Your task to perform on an android device: Open privacy settings Image 0: 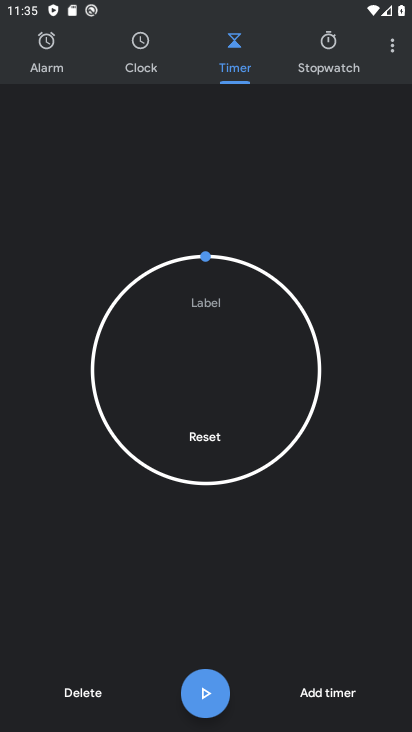
Step 0: press home button
Your task to perform on an android device: Open privacy settings Image 1: 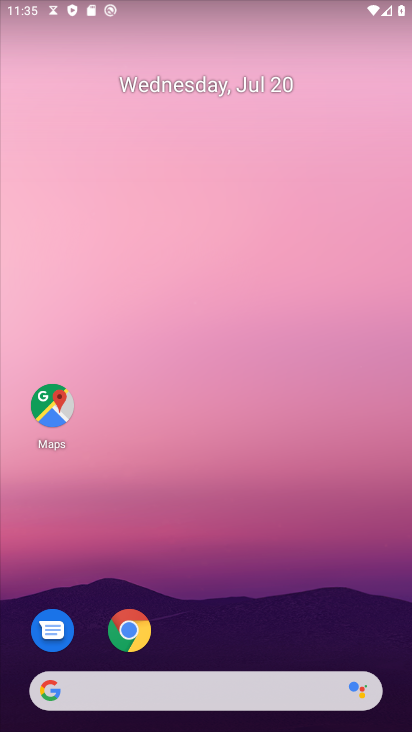
Step 1: drag from (47, 649) to (245, 170)
Your task to perform on an android device: Open privacy settings Image 2: 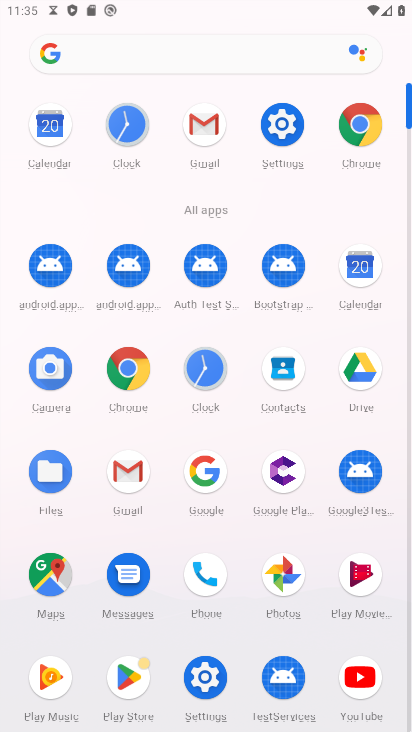
Step 2: click (194, 659)
Your task to perform on an android device: Open privacy settings Image 3: 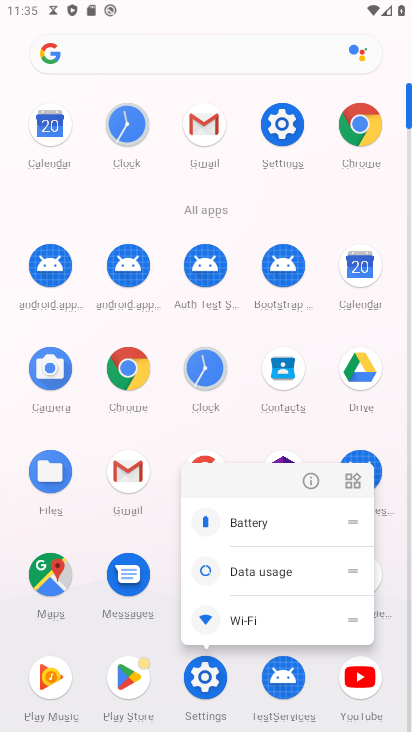
Step 3: click (201, 677)
Your task to perform on an android device: Open privacy settings Image 4: 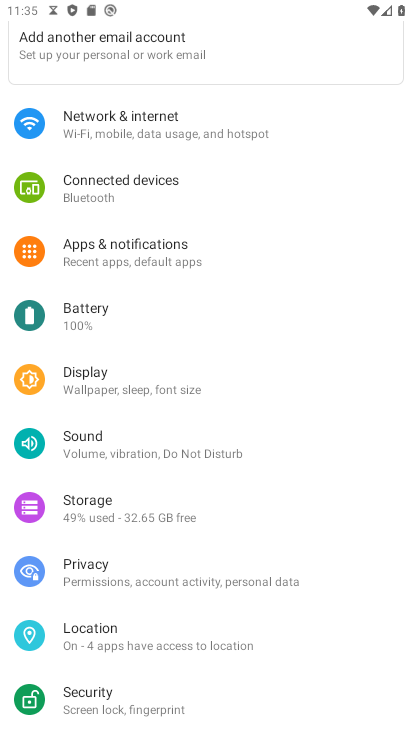
Step 4: click (99, 573)
Your task to perform on an android device: Open privacy settings Image 5: 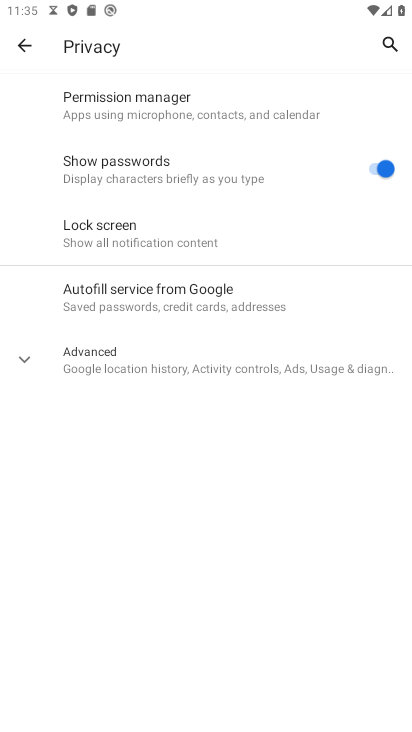
Step 5: task complete